Your task to perform on an android device: turn on improve location accuracy Image 0: 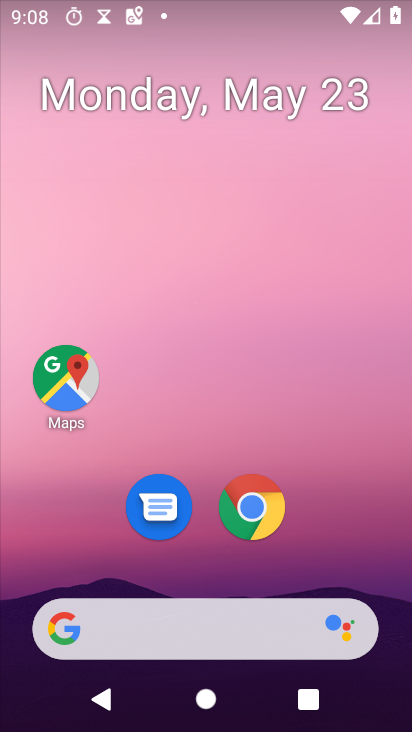
Step 0: drag from (386, 401) to (337, 45)
Your task to perform on an android device: turn on improve location accuracy Image 1: 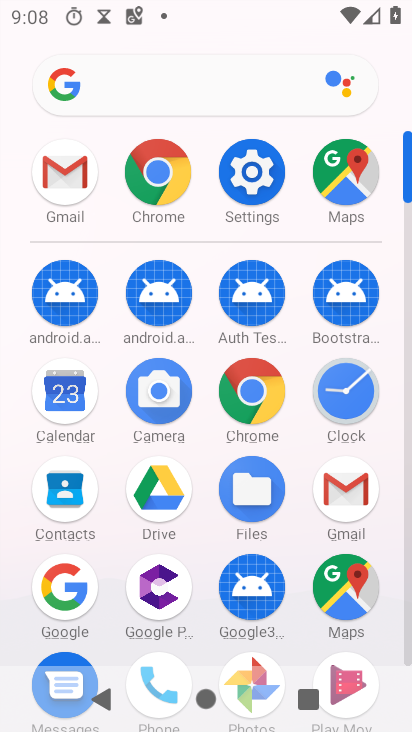
Step 1: click (240, 177)
Your task to perform on an android device: turn on improve location accuracy Image 2: 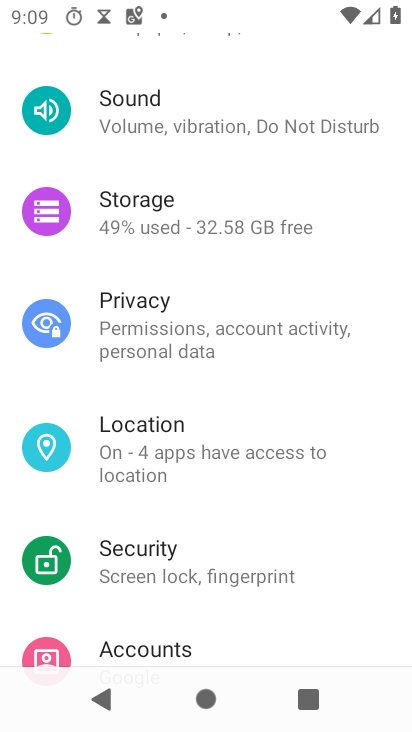
Step 2: click (188, 442)
Your task to perform on an android device: turn on improve location accuracy Image 3: 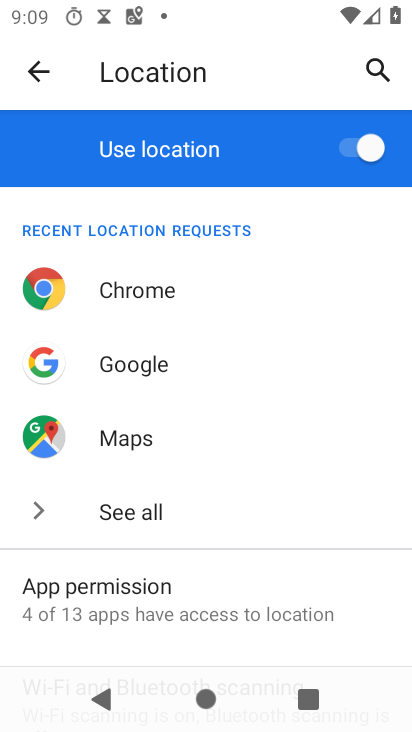
Step 3: drag from (265, 594) to (189, 170)
Your task to perform on an android device: turn on improve location accuracy Image 4: 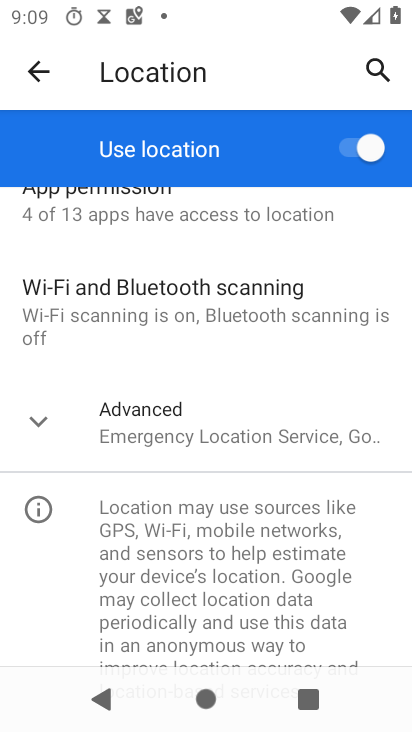
Step 4: click (139, 439)
Your task to perform on an android device: turn on improve location accuracy Image 5: 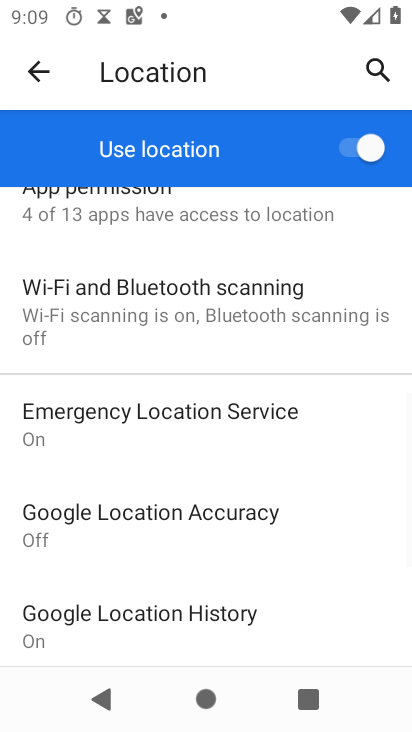
Step 5: click (184, 528)
Your task to perform on an android device: turn on improve location accuracy Image 6: 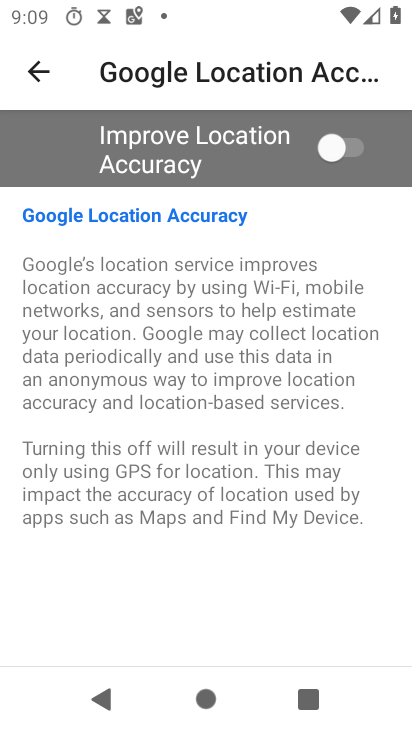
Step 6: click (342, 144)
Your task to perform on an android device: turn on improve location accuracy Image 7: 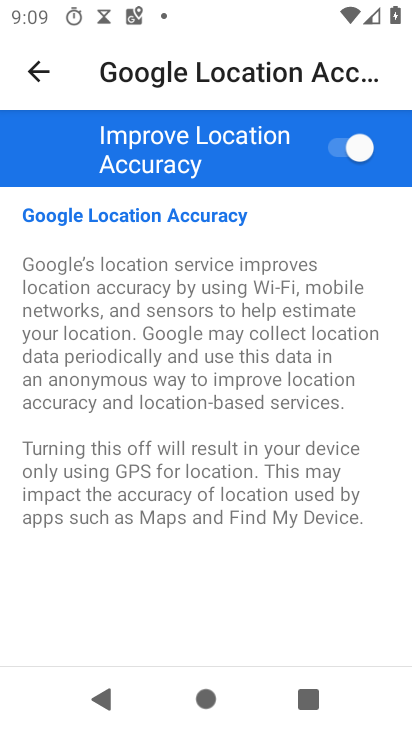
Step 7: task complete